Your task to perform on an android device: Search for Italian restaurants on Maps Image 0: 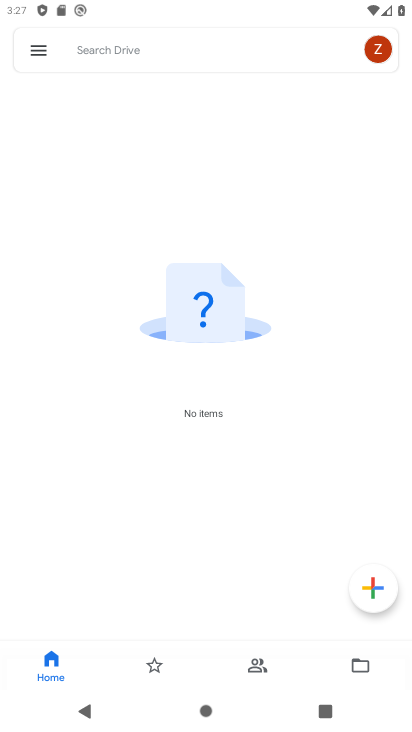
Step 0: press home button
Your task to perform on an android device: Search for Italian restaurants on Maps Image 1: 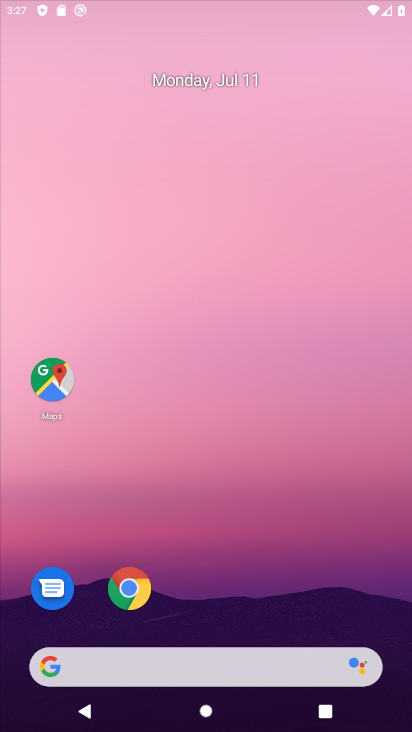
Step 1: drag from (169, 499) to (189, 301)
Your task to perform on an android device: Search for Italian restaurants on Maps Image 2: 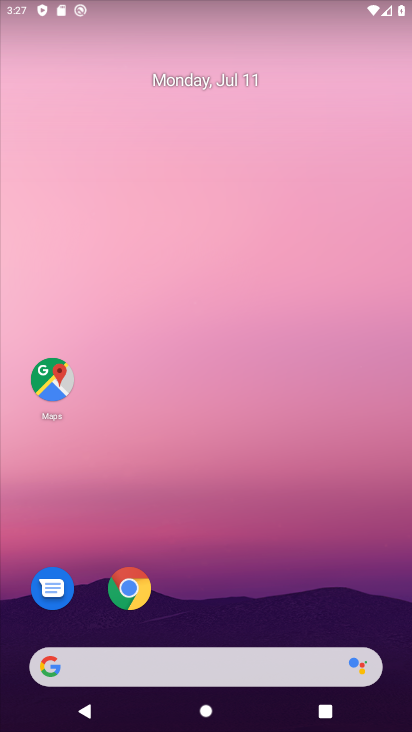
Step 2: click (52, 392)
Your task to perform on an android device: Search for Italian restaurants on Maps Image 3: 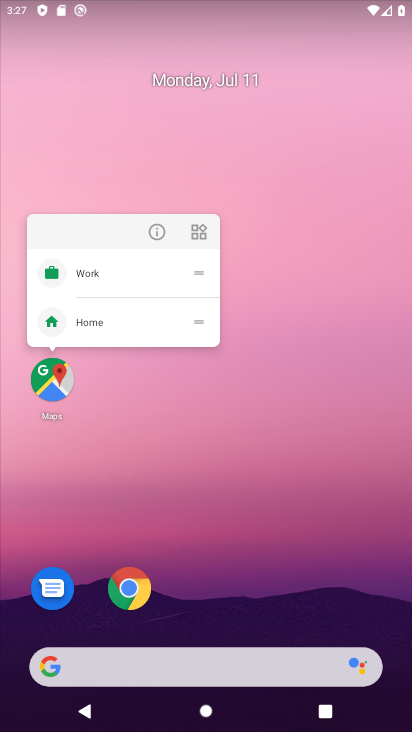
Step 3: click (48, 373)
Your task to perform on an android device: Search for Italian restaurants on Maps Image 4: 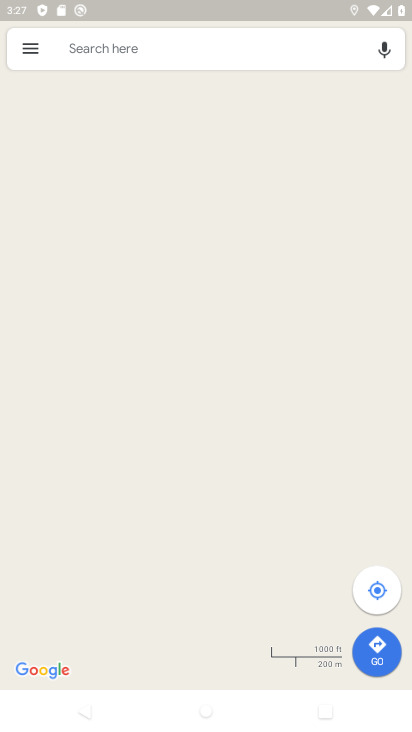
Step 4: click (140, 54)
Your task to perform on an android device: Search for Italian restaurants on Maps Image 5: 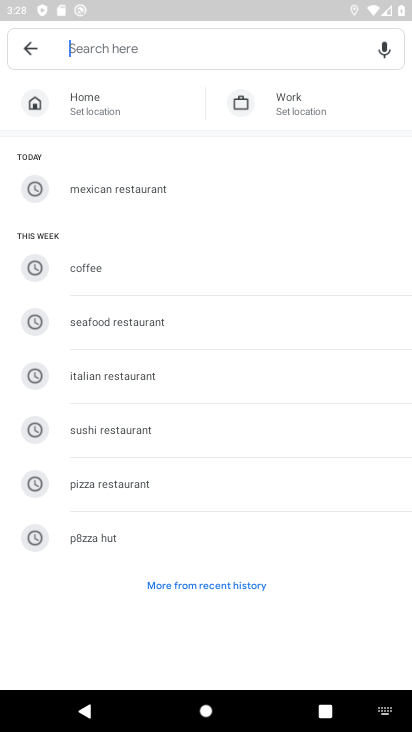
Step 5: type "italian restaurants"
Your task to perform on an android device: Search for Italian restaurants on Maps Image 6: 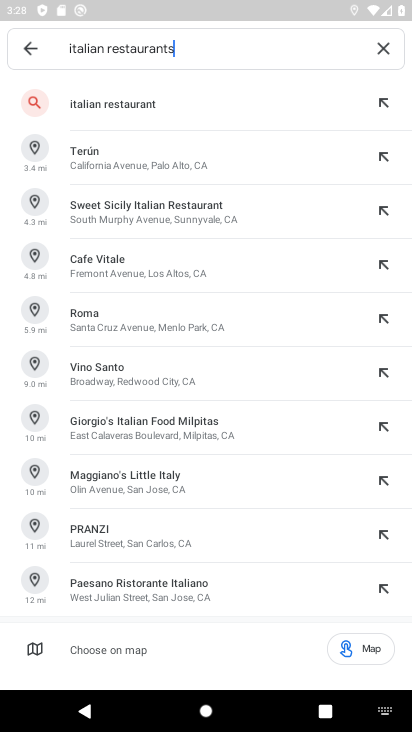
Step 6: click (139, 99)
Your task to perform on an android device: Search for Italian restaurants on Maps Image 7: 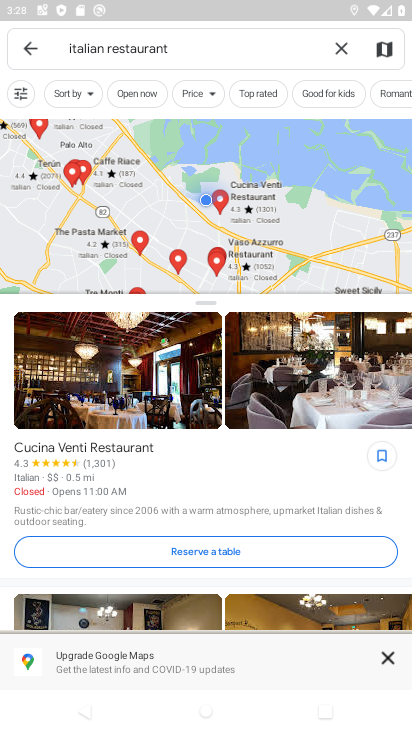
Step 7: task complete